Your task to perform on an android device: Go to Maps Image 0: 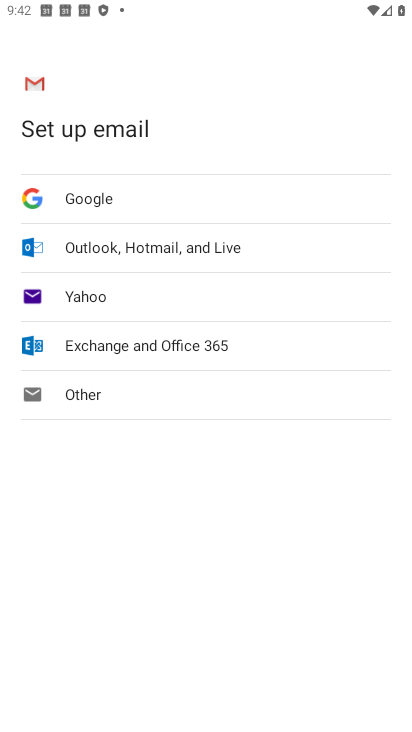
Step 0: press home button
Your task to perform on an android device: Go to Maps Image 1: 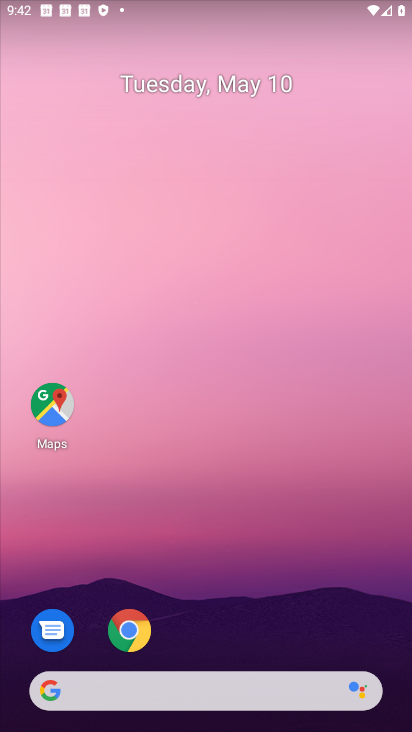
Step 1: click (51, 406)
Your task to perform on an android device: Go to Maps Image 2: 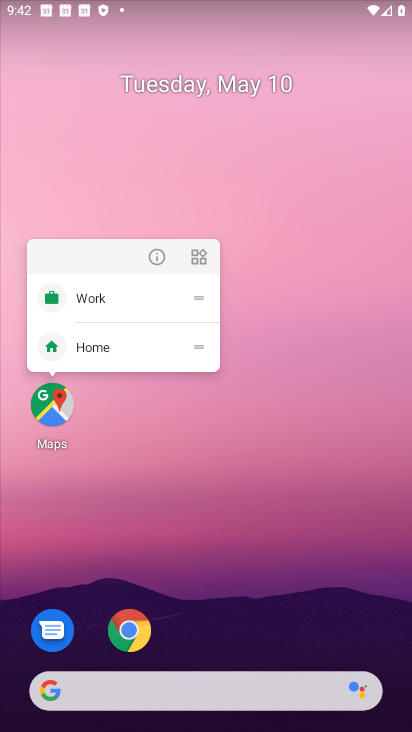
Step 2: click (59, 421)
Your task to perform on an android device: Go to Maps Image 3: 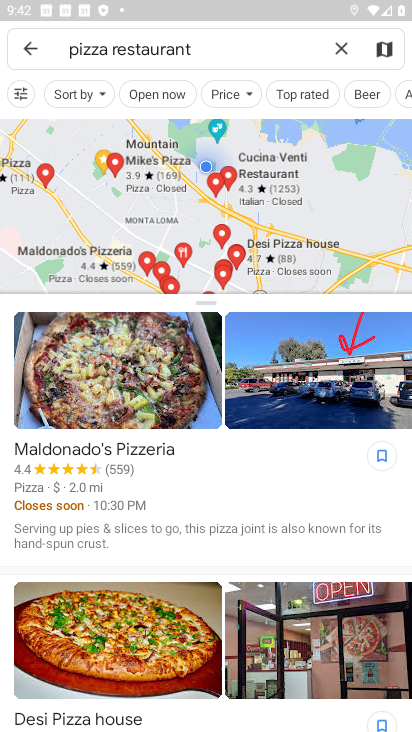
Step 3: task complete